Your task to perform on an android device: Open wifi settings Image 0: 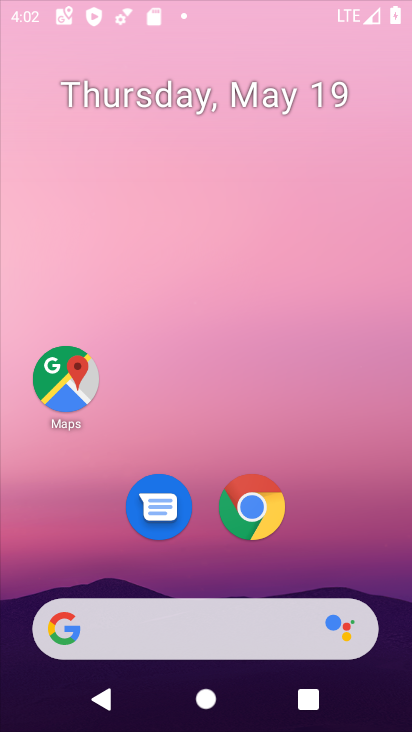
Step 0: click (249, 506)
Your task to perform on an android device: Open wifi settings Image 1: 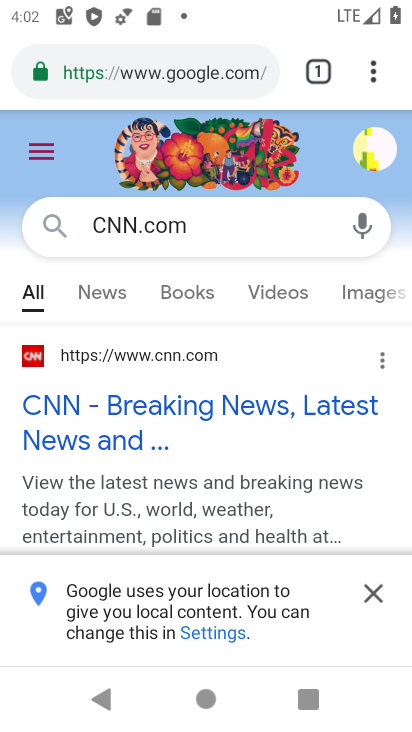
Step 1: press home button
Your task to perform on an android device: Open wifi settings Image 2: 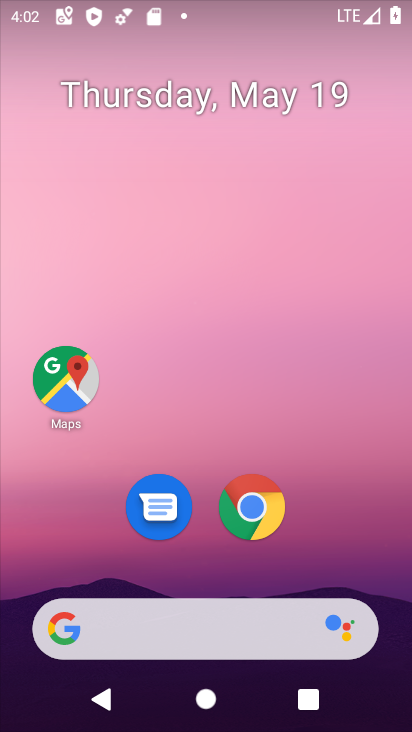
Step 2: drag from (393, 635) to (389, 235)
Your task to perform on an android device: Open wifi settings Image 3: 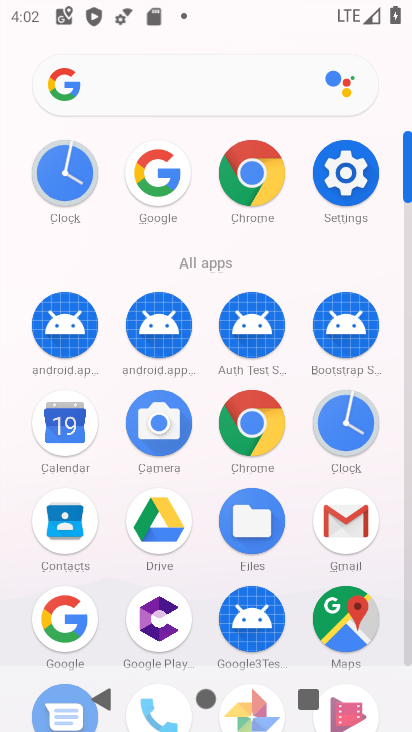
Step 3: click (355, 186)
Your task to perform on an android device: Open wifi settings Image 4: 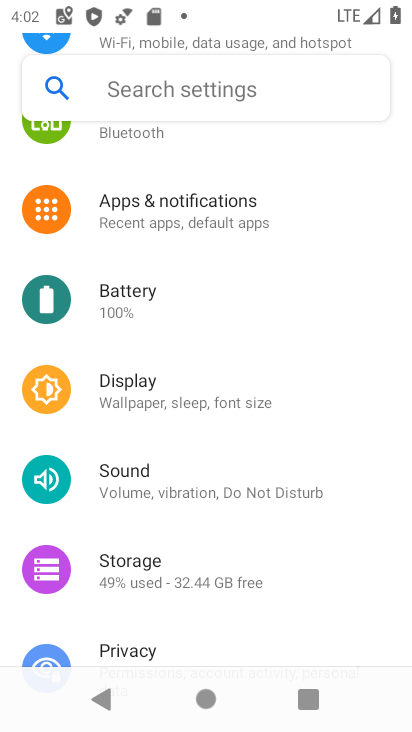
Step 4: drag from (316, 174) to (301, 557)
Your task to perform on an android device: Open wifi settings Image 5: 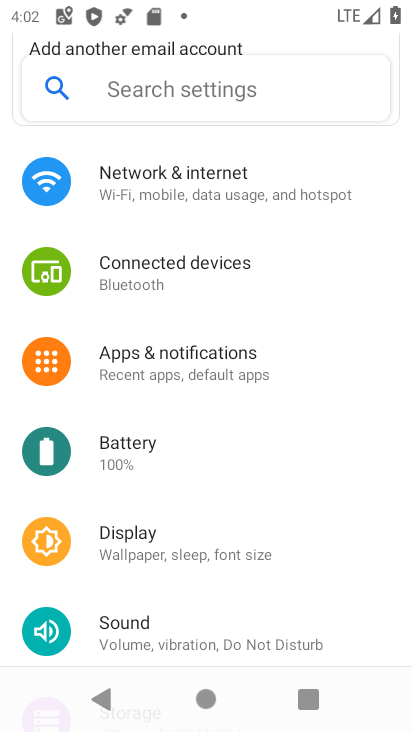
Step 5: drag from (325, 172) to (344, 423)
Your task to perform on an android device: Open wifi settings Image 6: 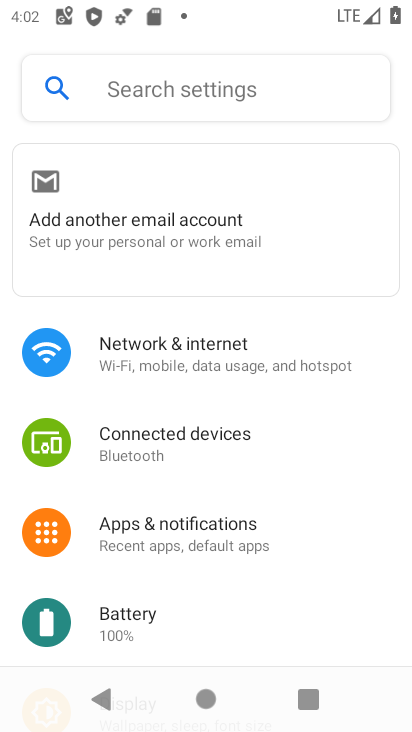
Step 6: click (178, 339)
Your task to perform on an android device: Open wifi settings Image 7: 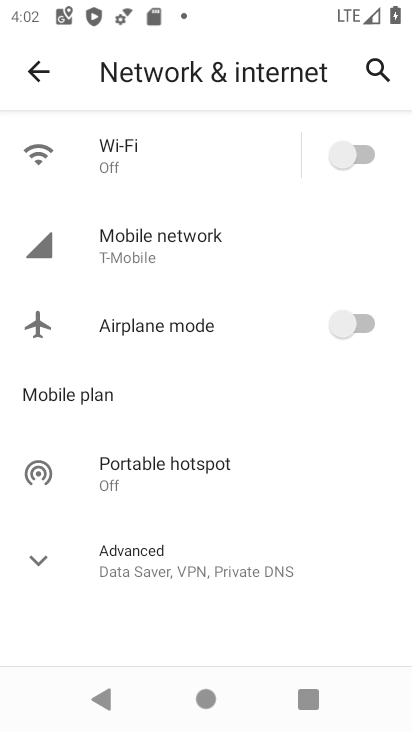
Step 7: click (361, 147)
Your task to perform on an android device: Open wifi settings Image 8: 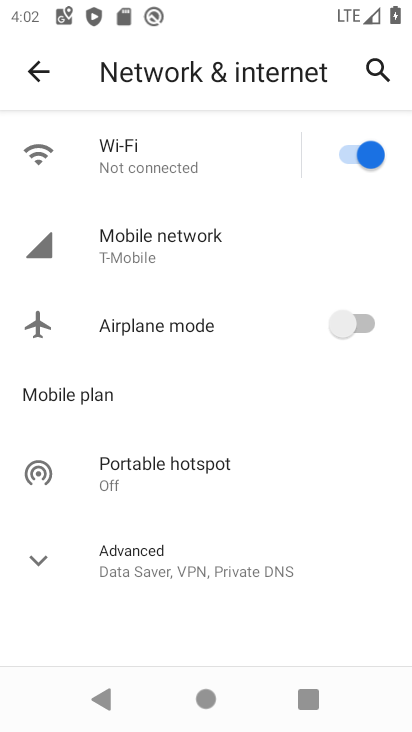
Step 8: click (176, 171)
Your task to perform on an android device: Open wifi settings Image 9: 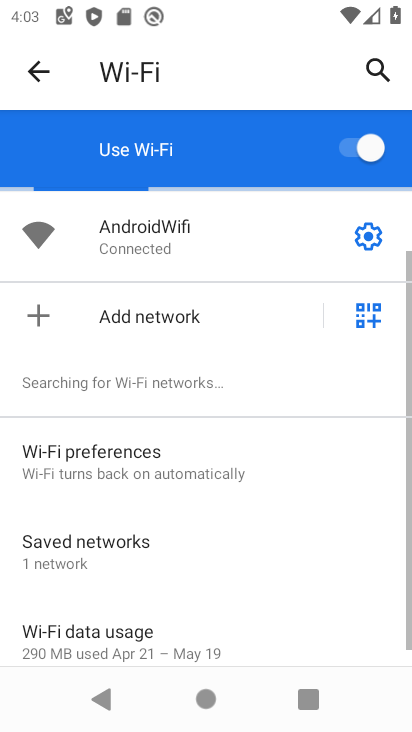
Step 9: click (357, 231)
Your task to perform on an android device: Open wifi settings Image 10: 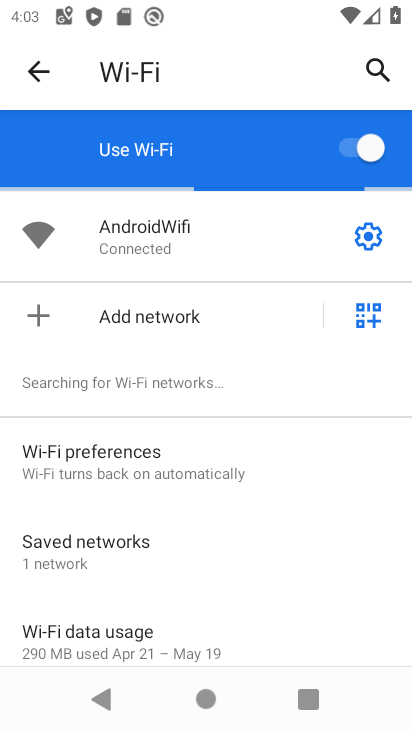
Step 10: task complete